Your task to perform on an android device: search for starred emails in the gmail app Image 0: 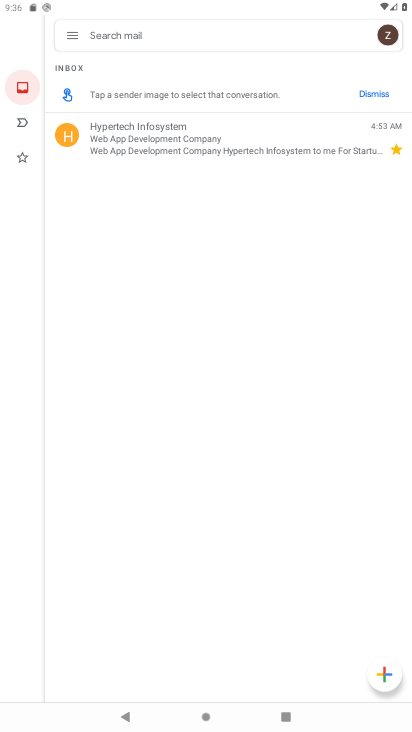
Step 0: click (64, 38)
Your task to perform on an android device: search for starred emails in the gmail app Image 1: 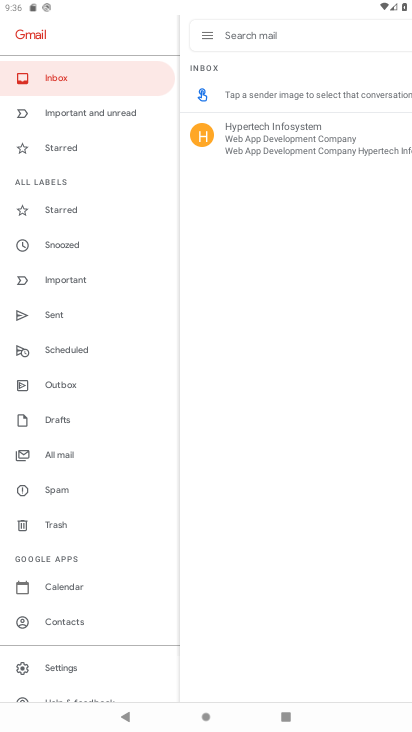
Step 1: click (71, 220)
Your task to perform on an android device: search for starred emails in the gmail app Image 2: 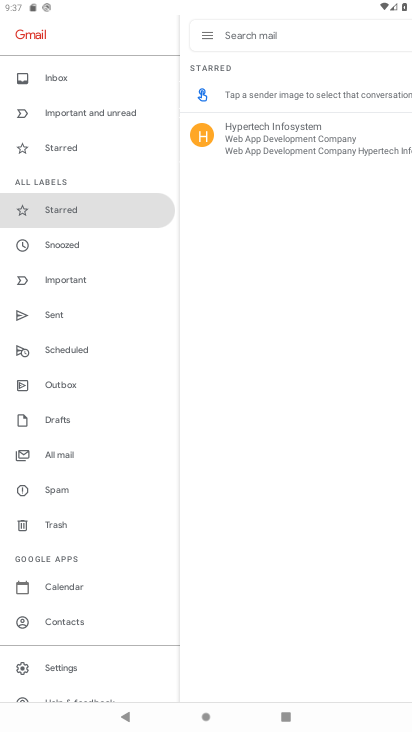
Step 2: task complete